Your task to perform on an android device: Open the Play Movies app and select the watchlist tab. Image 0: 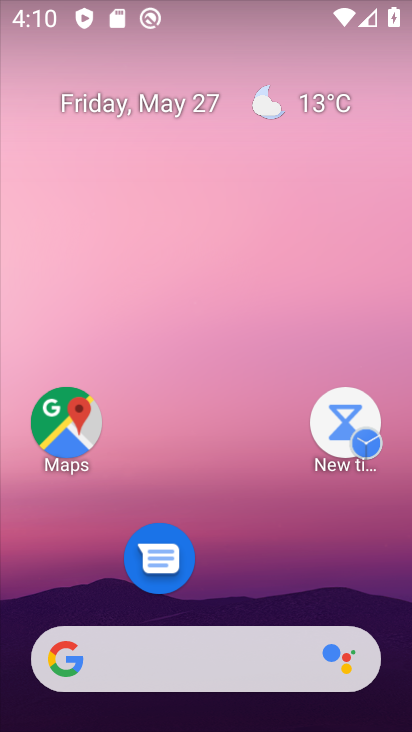
Step 0: drag from (373, 661) to (119, 248)
Your task to perform on an android device: Open the Play Movies app and select the watchlist tab. Image 1: 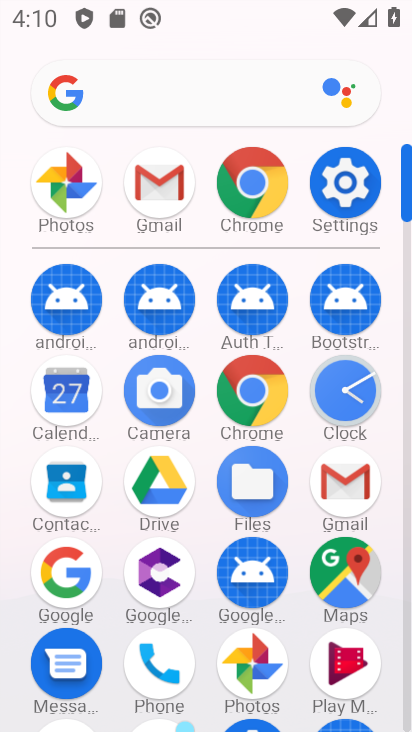
Step 1: click (336, 675)
Your task to perform on an android device: Open the Play Movies app and select the watchlist tab. Image 2: 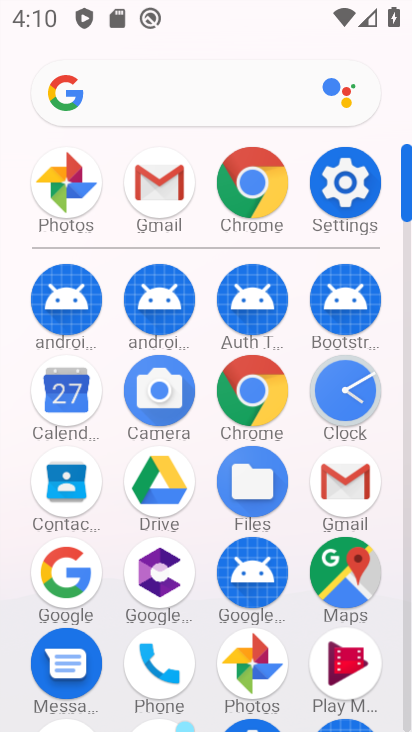
Step 2: click (336, 675)
Your task to perform on an android device: Open the Play Movies app and select the watchlist tab. Image 3: 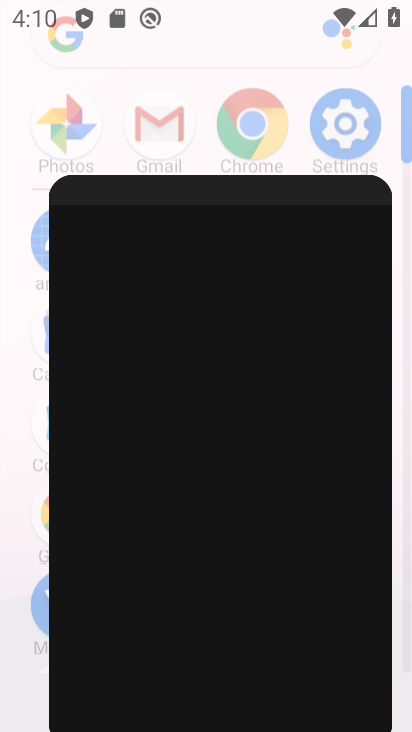
Step 3: click (336, 675)
Your task to perform on an android device: Open the Play Movies app and select the watchlist tab. Image 4: 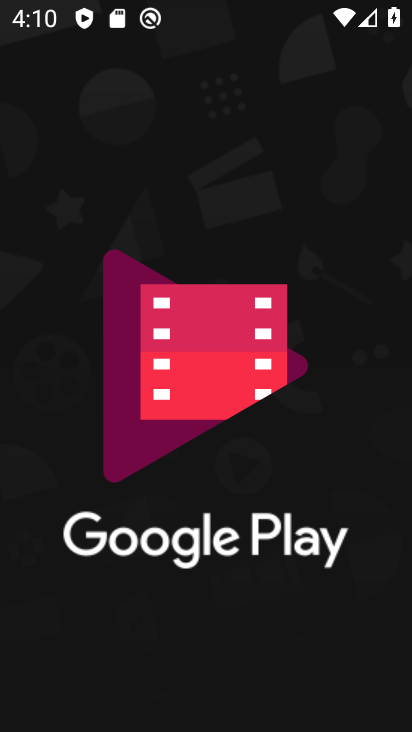
Step 4: click (336, 675)
Your task to perform on an android device: Open the Play Movies app and select the watchlist tab. Image 5: 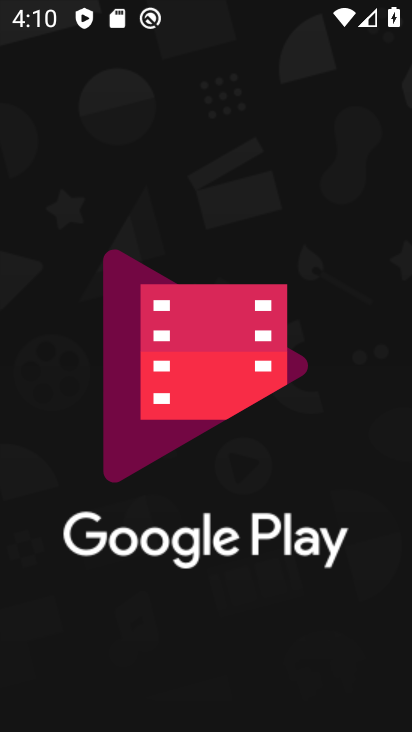
Step 5: click (339, 675)
Your task to perform on an android device: Open the Play Movies app and select the watchlist tab. Image 6: 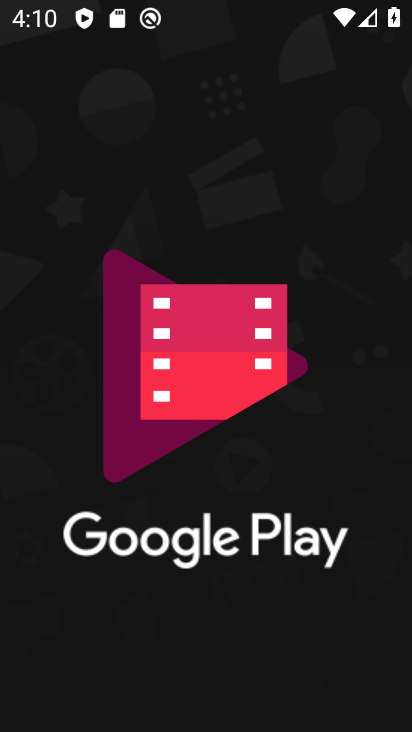
Step 6: click (342, 670)
Your task to perform on an android device: Open the Play Movies app and select the watchlist tab. Image 7: 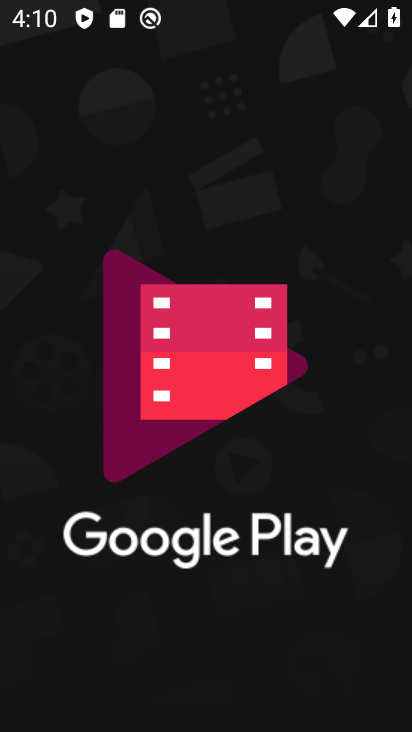
Step 7: click (343, 670)
Your task to perform on an android device: Open the Play Movies app and select the watchlist tab. Image 8: 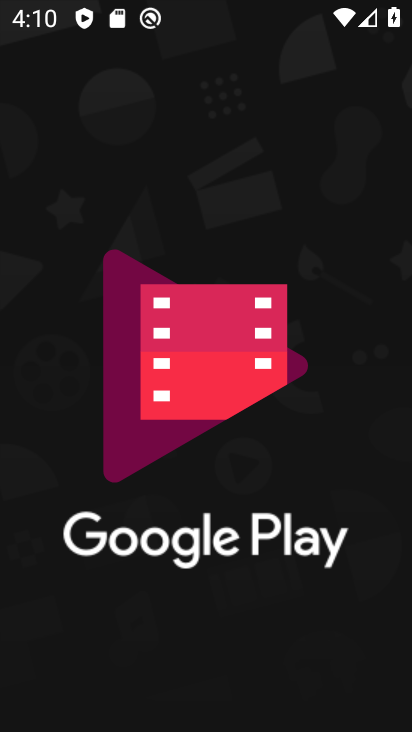
Step 8: click (344, 670)
Your task to perform on an android device: Open the Play Movies app and select the watchlist tab. Image 9: 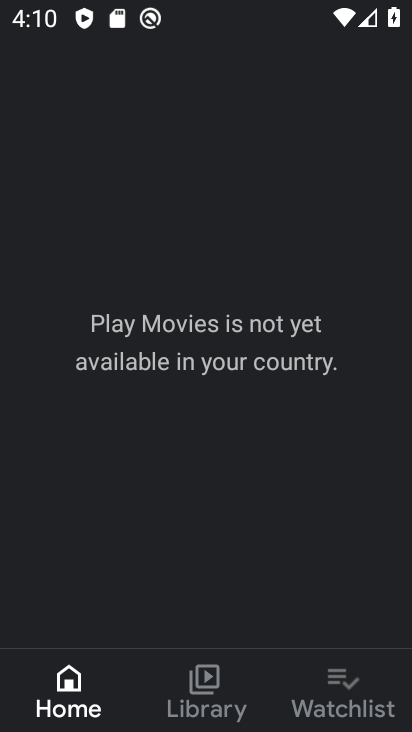
Step 9: click (355, 704)
Your task to perform on an android device: Open the Play Movies app and select the watchlist tab. Image 10: 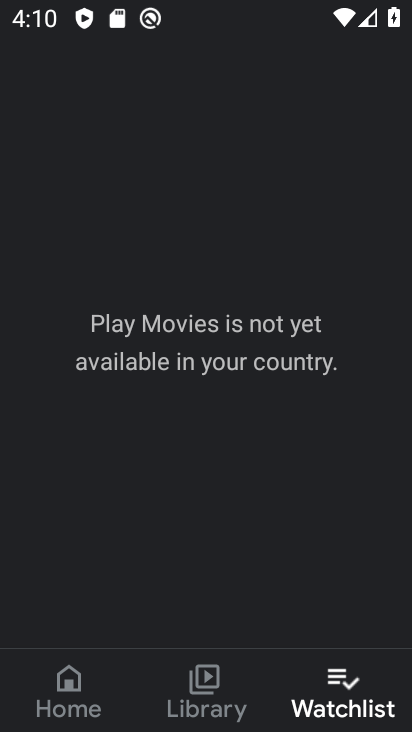
Step 10: click (354, 703)
Your task to perform on an android device: Open the Play Movies app and select the watchlist tab. Image 11: 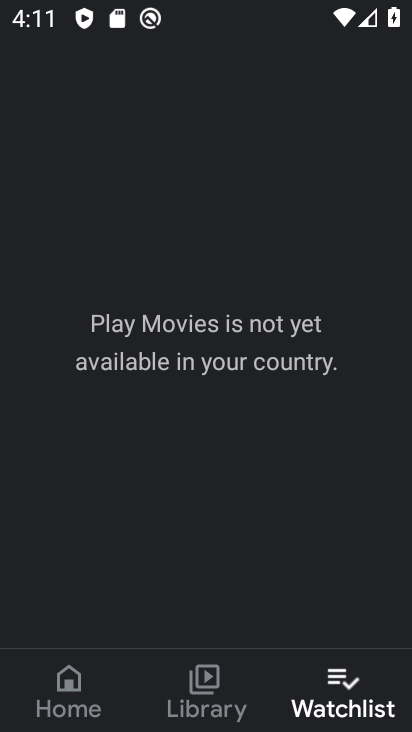
Step 11: click (354, 703)
Your task to perform on an android device: Open the Play Movies app and select the watchlist tab. Image 12: 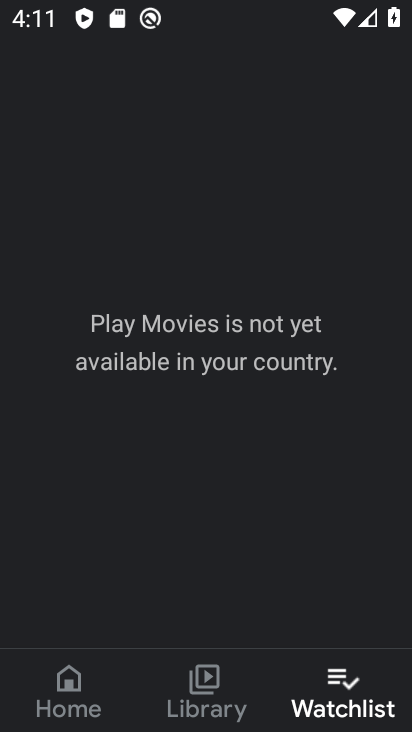
Step 12: click (354, 703)
Your task to perform on an android device: Open the Play Movies app and select the watchlist tab. Image 13: 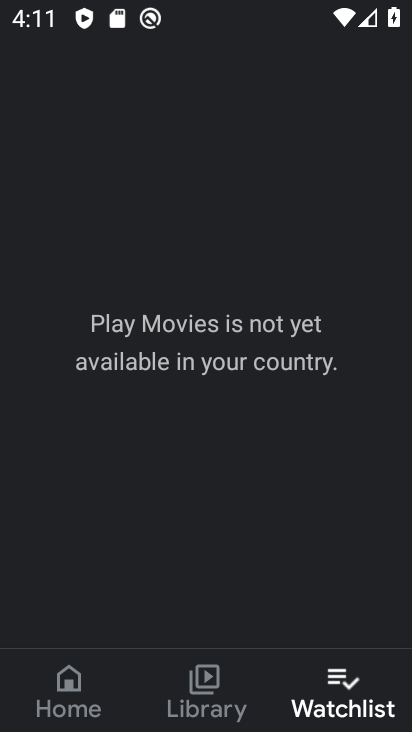
Step 13: click (354, 703)
Your task to perform on an android device: Open the Play Movies app and select the watchlist tab. Image 14: 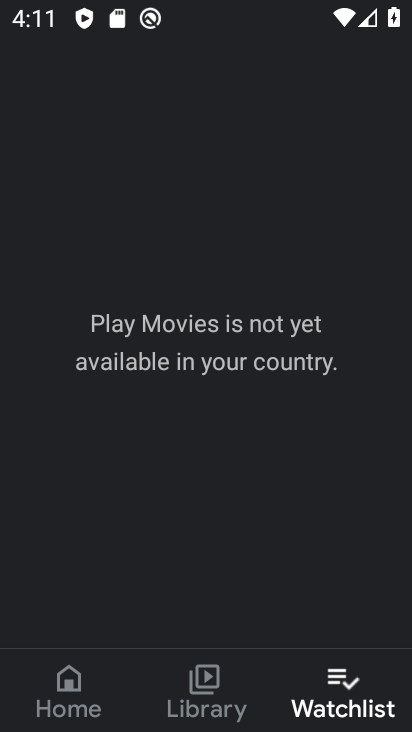
Step 14: click (354, 703)
Your task to perform on an android device: Open the Play Movies app and select the watchlist tab. Image 15: 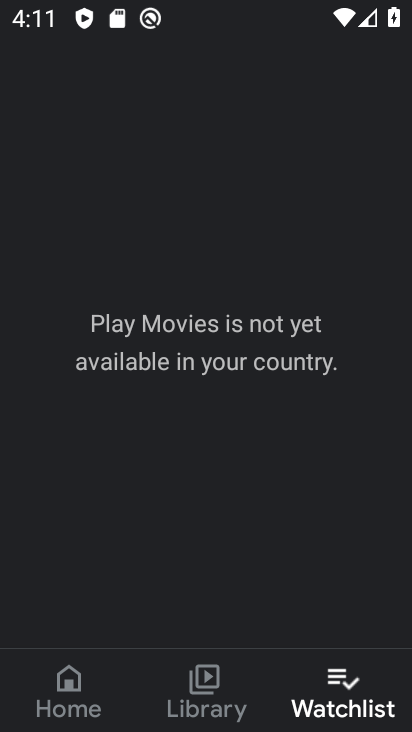
Step 15: task complete